Your task to perform on an android device: Set the phone to "Do not disturb". Image 0: 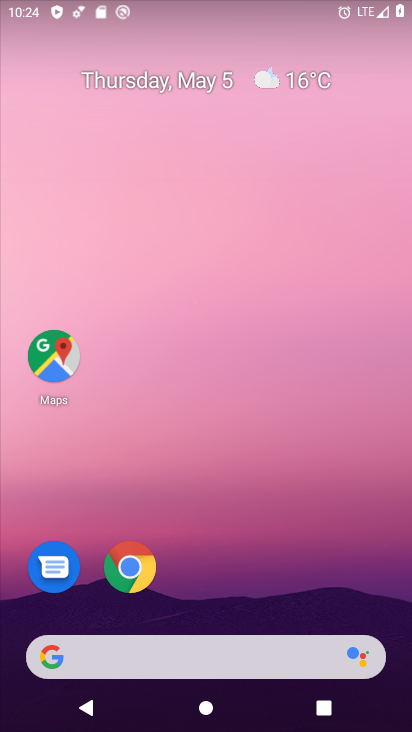
Step 0: drag from (289, 563) to (327, 43)
Your task to perform on an android device: Set the phone to "Do not disturb". Image 1: 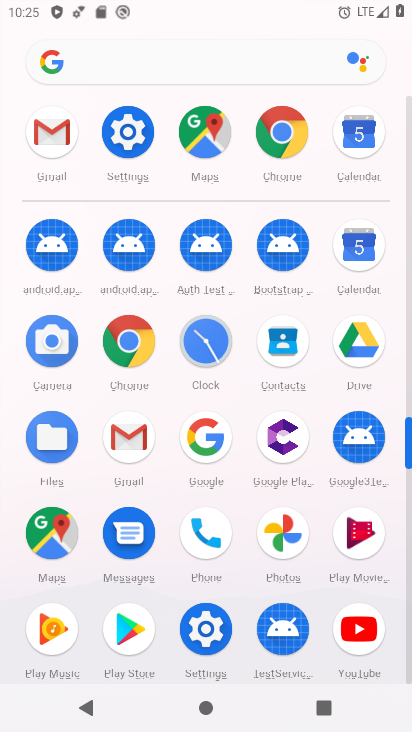
Step 1: click (125, 127)
Your task to perform on an android device: Set the phone to "Do not disturb". Image 2: 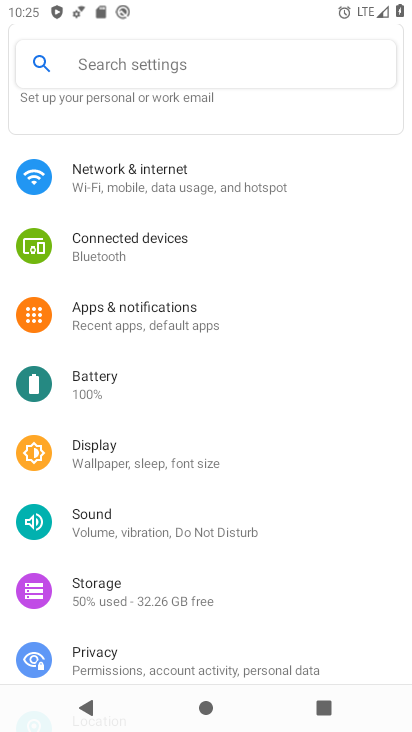
Step 2: click (201, 529)
Your task to perform on an android device: Set the phone to "Do not disturb". Image 3: 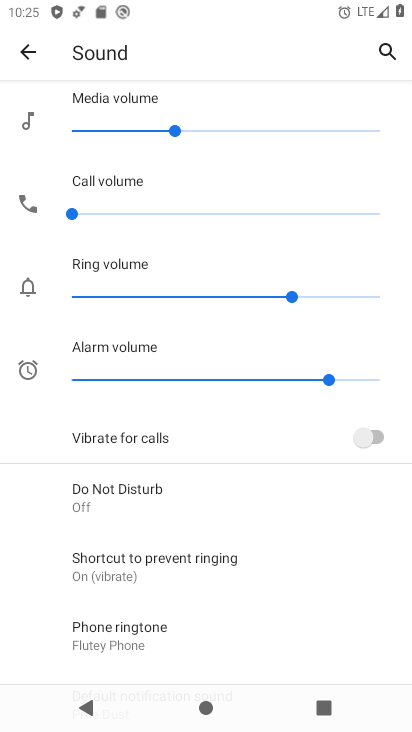
Step 3: click (174, 504)
Your task to perform on an android device: Set the phone to "Do not disturb". Image 4: 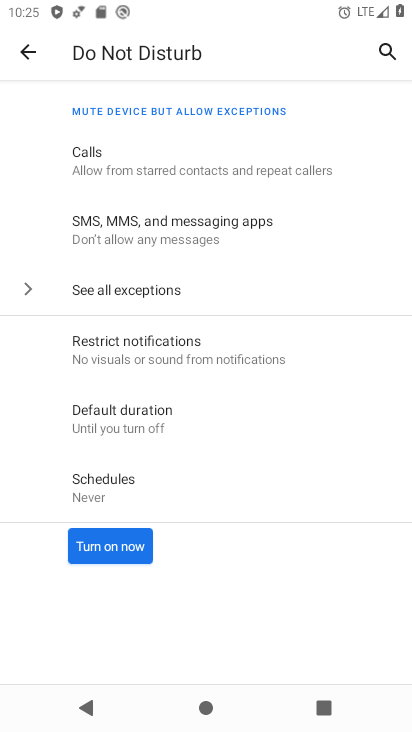
Step 4: click (134, 544)
Your task to perform on an android device: Set the phone to "Do not disturb". Image 5: 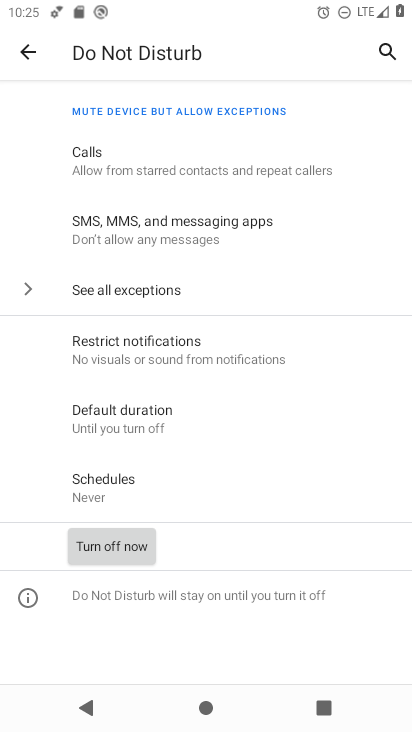
Step 5: task complete